Your task to perform on an android device: Open eBay Image 0: 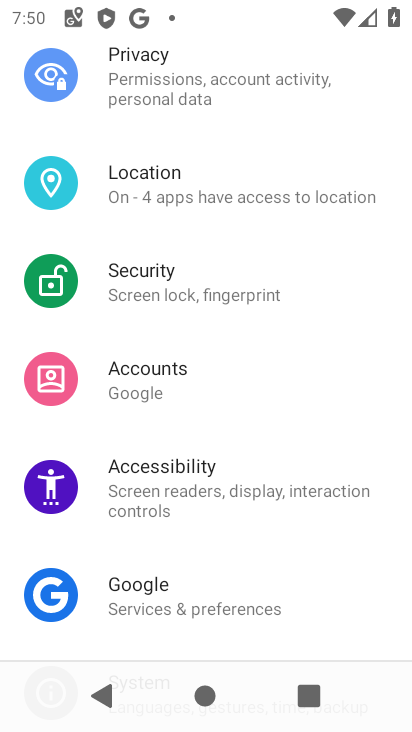
Step 0: press home button
Your task to perform on an android device: Open eBay Image 1: 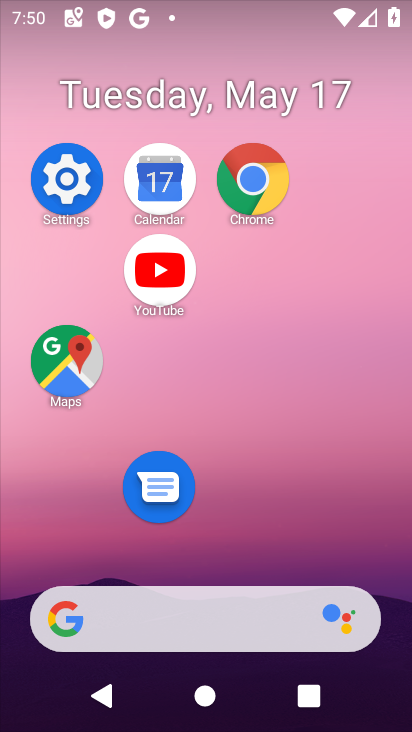
Step 1: click (248, 190)
Your task to perform on an android device: Open eBay Image 2: 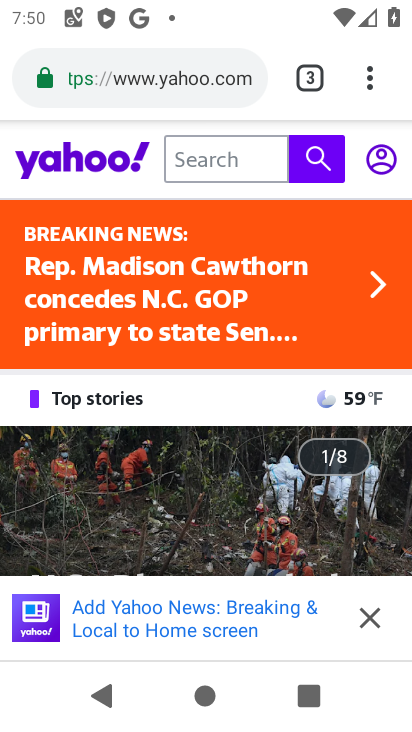
Step 2: click (315, 85)
Your task to perform on an android device: Open eBay Image 3: 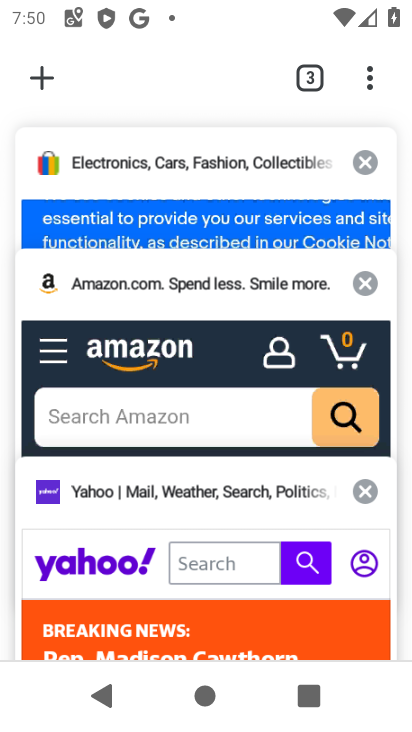
Step 3: click (145, 168)
Your task to perform on an android device: Open eBay Image 4: 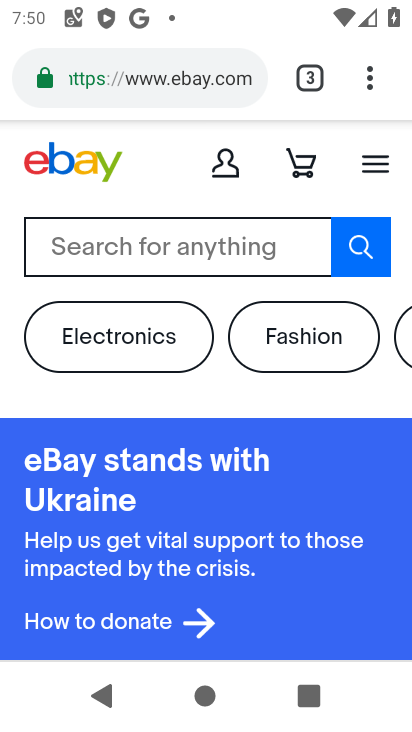
Step 4: task complete